Your task to perform on an android device: turn pop-ups off in chrome Image 0: 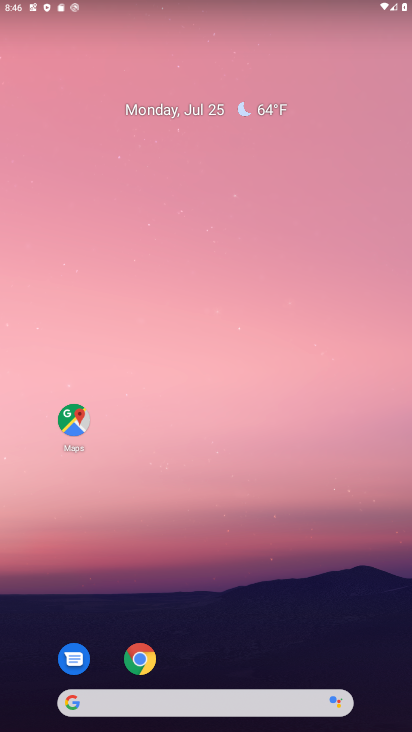
Step 0: press home button
Your task to perform on an android device: turn pop-ups off in chrome Image 1: 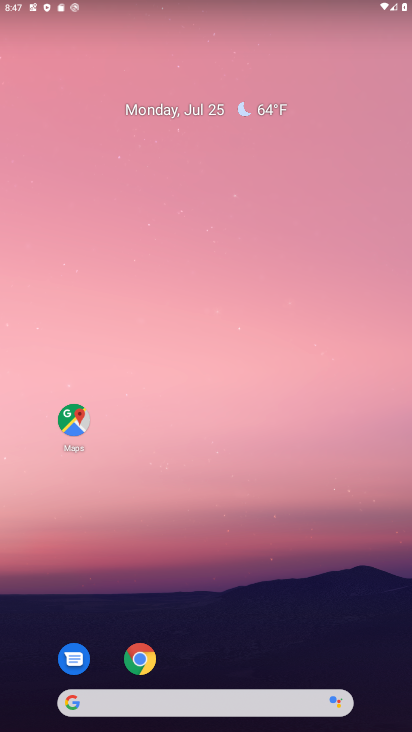
Step 1: drag from (319, 604) to (347, 131)
Your task to perform on an android device: turn pop-ups off in chrome Image 2: 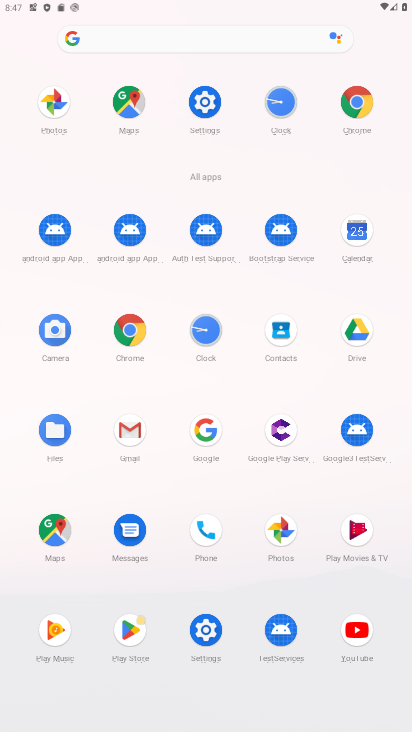
Step 2: click (135, 335)
Your task to perform on an android device: turn pop-ups off in chrome Image 3: 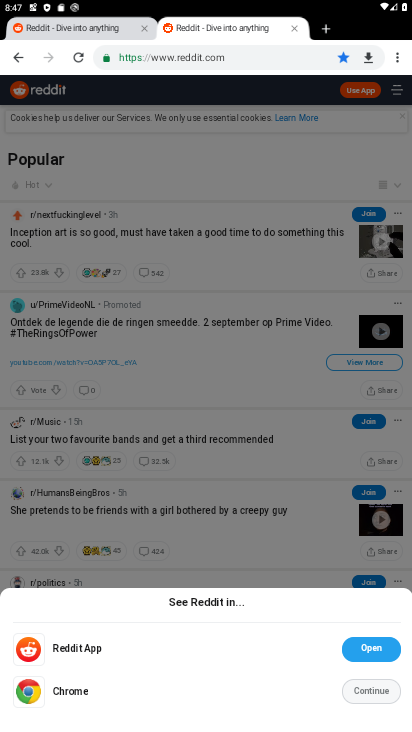
Step 3: click (398, 58)
Your task to perform on an android device: turn pop-ups off in chrome Image 4: 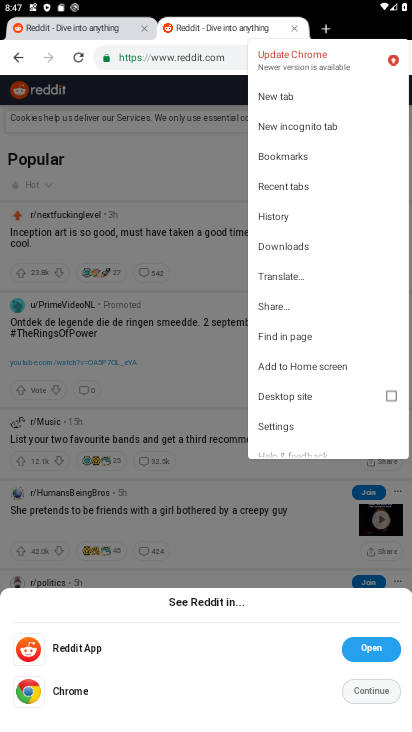
Step 4: click (289, 428)
Your task to perform on an android device: turn pop-ups off in chrome Image 5: 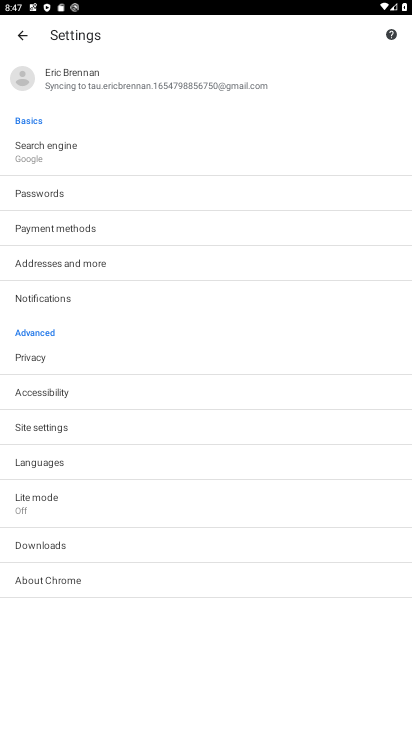
Step 5: click (193, 427)
Your task to perform on an android device: turn pop-ups off in chrome Image 6: 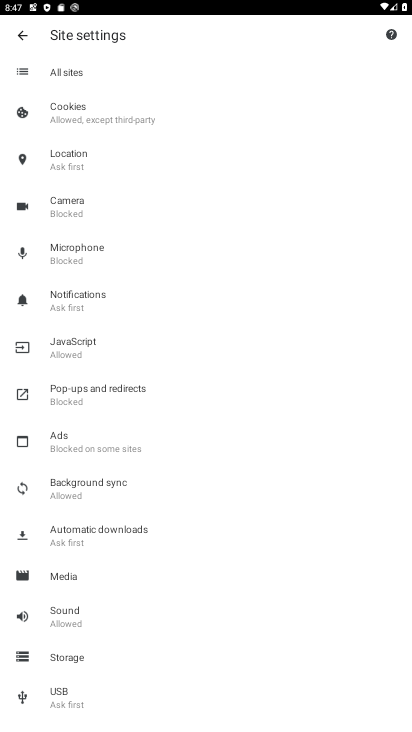
Step 6: click (136, 404)
Your task to perform on an android device: turn pop-ups off in chrome Image 7: 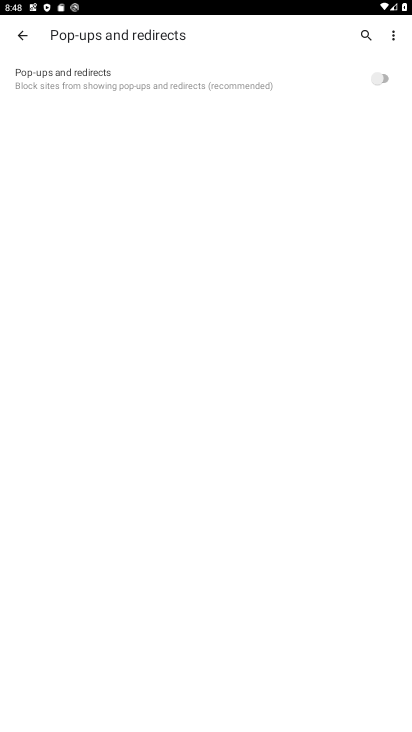
Step 7: task complete